Your task to perform on an android device: Do I have any events this weekend? Image 0: 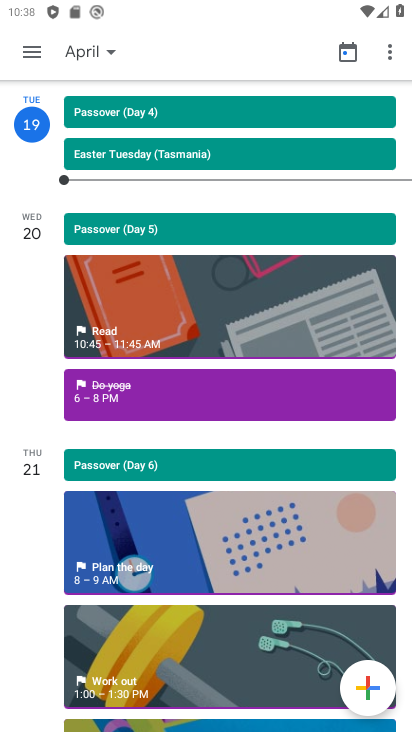
Step 0: press home button
Your task to perform on an android device: Do I have any events this weekend? Image 1: 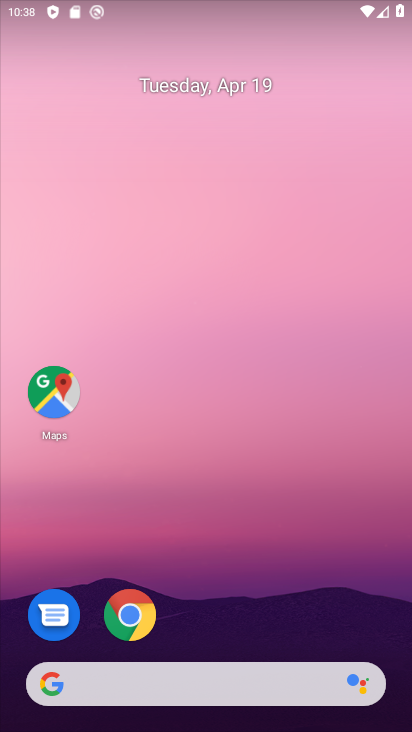
Step 1: drag from (246, 573) to (267, 36)
Your task to perform on an android device: Do I have any events this weekend? Image 2: 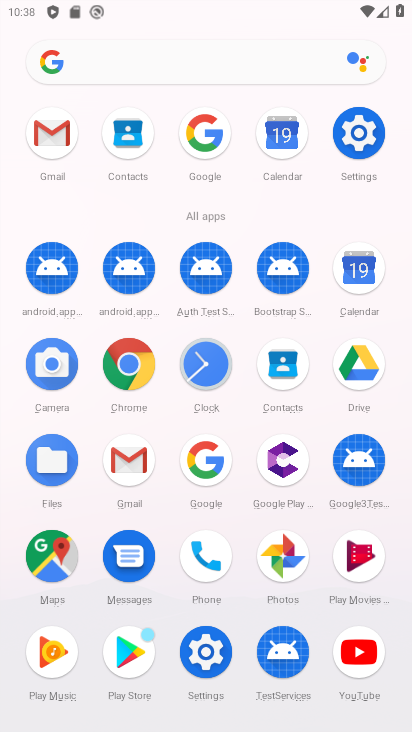
Step 2: click (355, 268)
Your task to perform on an android device: Do I have any events this weekend? Image 3: 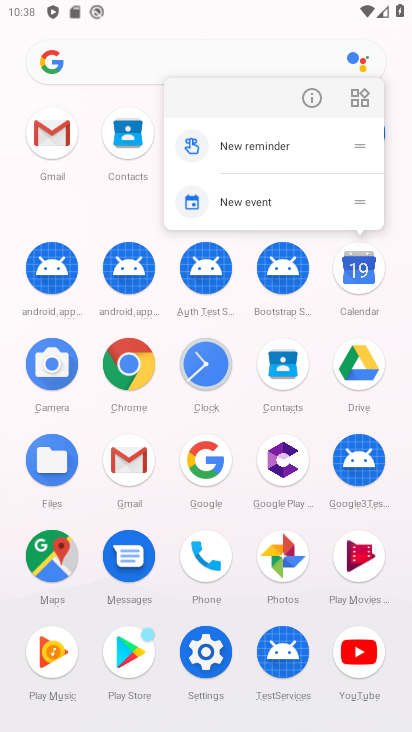
Step 3: click (355, 268)
Your task to perform on an android device: Do I have any events this weekend? Image 4: 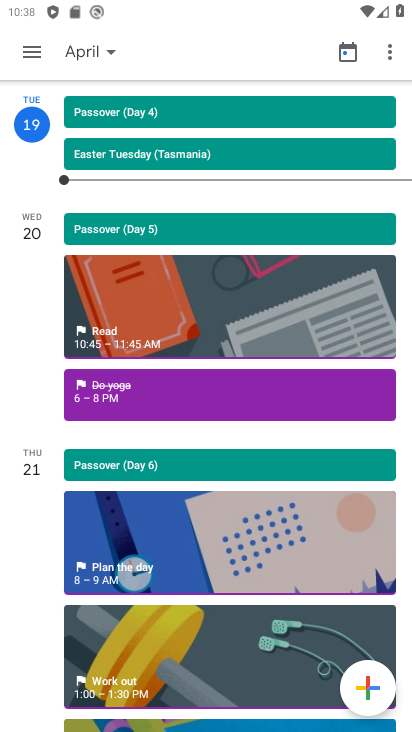
Step 4: click (101, 53)
Your task to perform on an android device: Do I have any events this weekend? Image 5: 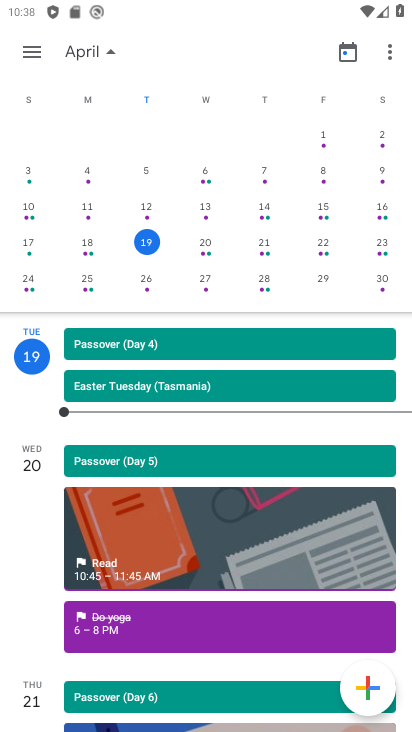
Step 5: click (325, 241)
Your task to perform on an android device: Do I have any events this weekend? Image 6: 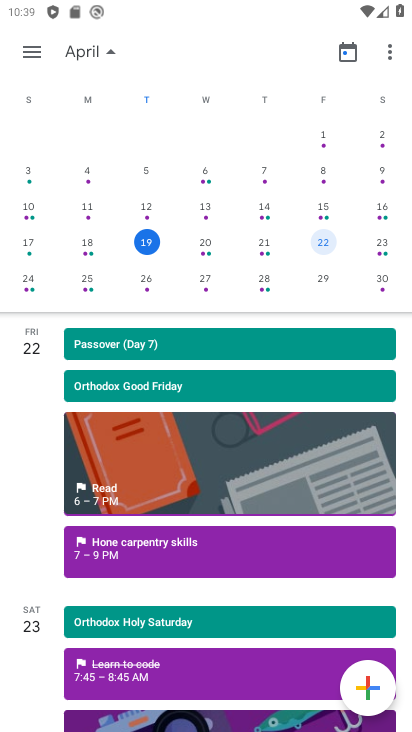
Step 6: task complete